Your task to perform on an android device: Open network settings Image 0: 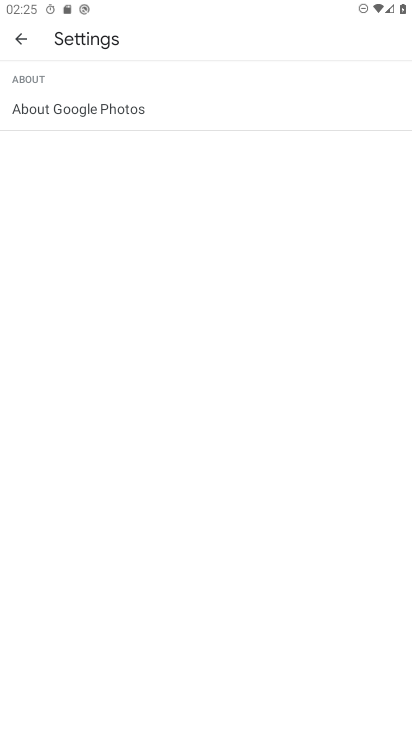
Step 0: press home button
Your task to perform on an android device: Open network settings Image 1: 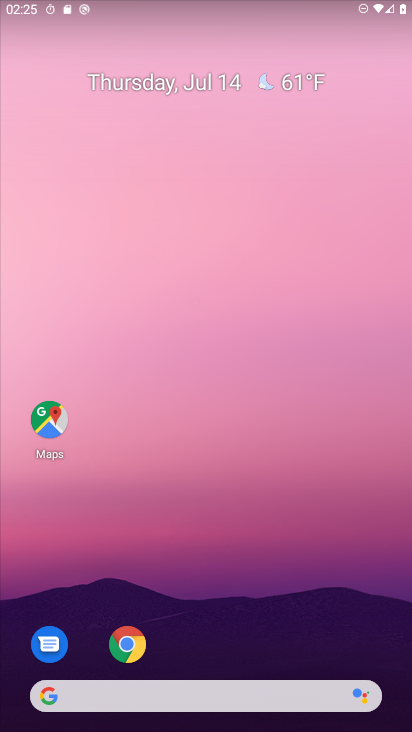
Step 1: drag from (255, 581) to (206, 80)
Your task to perform on an android device: Open network settings Image 2: 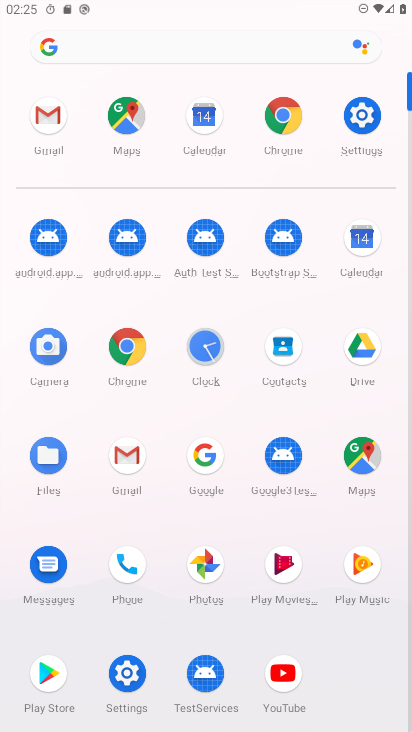
Step 2: click (365, 121)
Your task to perform on an android device: Open network settings Image 3: 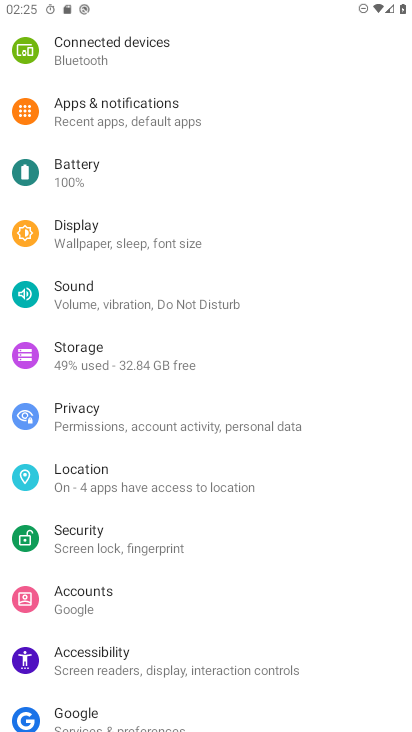
Step 3: drag from (120, 145) to (149, 559)
Your task to perform on an android device: Open network settings Image 4: 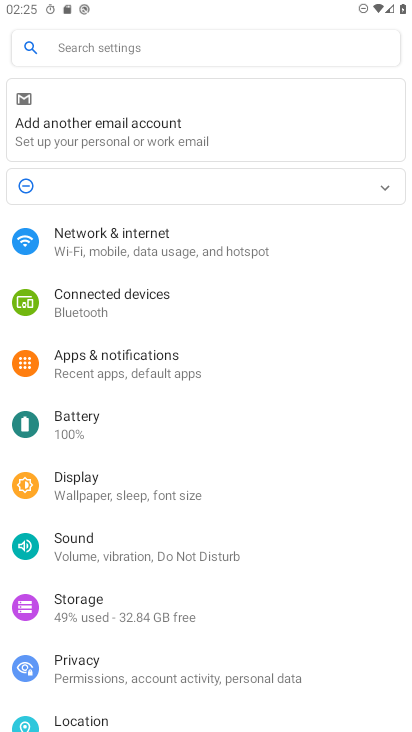
Step 4: click (119, 258)
Your task to perform on an android device: Open network settings Image 5: 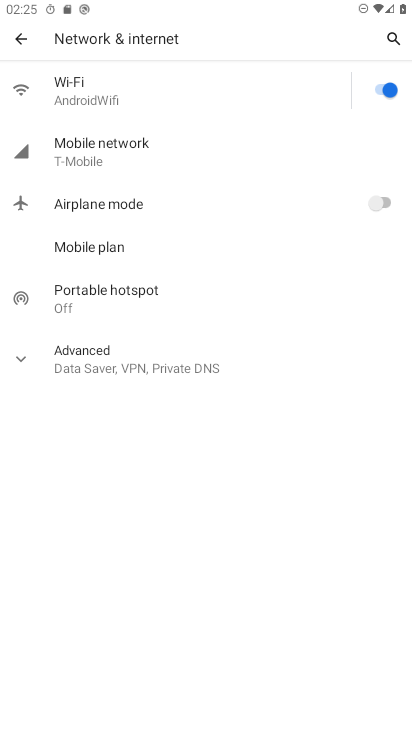
Step 5: task complete